Your task to perform on an android device: Clear the cart on newegg.com. Search for energizer triple a on newegg.com, select the first entry, and add it to the cart. Image 0: 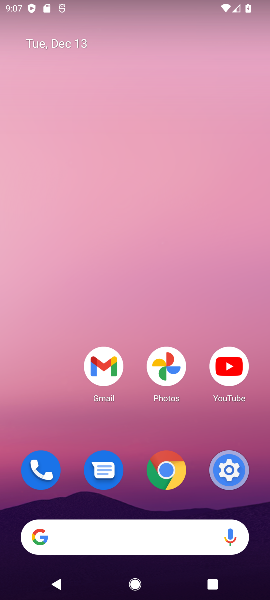
Step 0: press home button
Your task to perform on an android device: Clear the cart on newegg.com. Search for energizer triple a on newegg.com, select the first entry, and add it to the cart. Image 1: 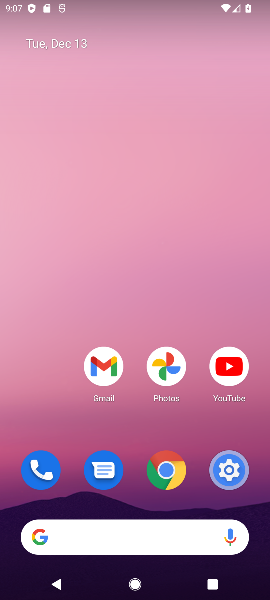
Step 1: click (56, 542)
Your task to perform on an android device: Clear the cart on newegg.com. Search for energizer triple a on newegg.com, select the first entry, and add it to the cart. Image 2: 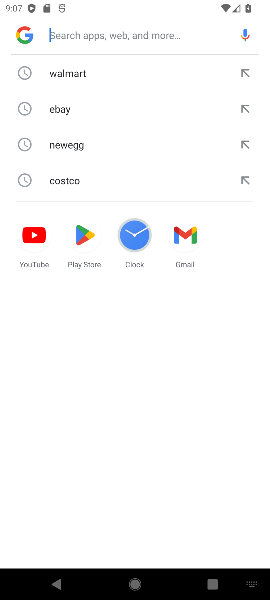
Step 2: type "newegg.com"
Your task to perform on an android device: Clear the cart on newegg.com. Search for energizer triple a on newegg.com, select the first entry, and add it to the cart. Image 3: 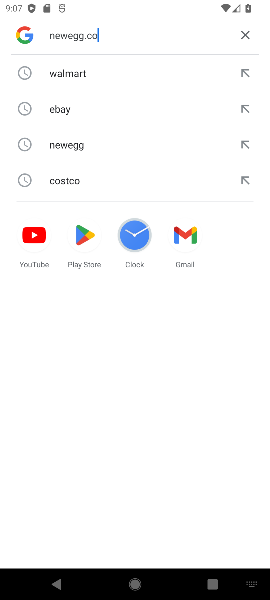
Step 3: press enter
Your task to perform on an android device: Clear the cart on newegg.com. Search for energizer triple a on newegg.com, select the first entry, and add it to the cart. Image 4: 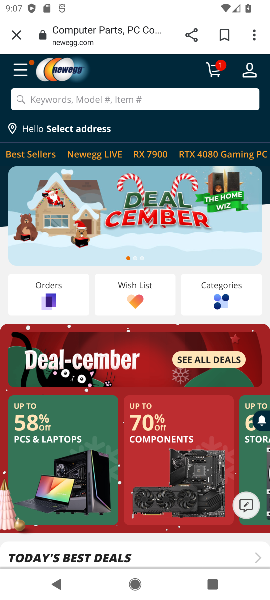
Step 4: click (212, 70)
Your task to perform on an android device: Clear the cart on newegg.com. Search for energizer triple a on newegg.com, select the first entry, and add it to the cart. Image 5: 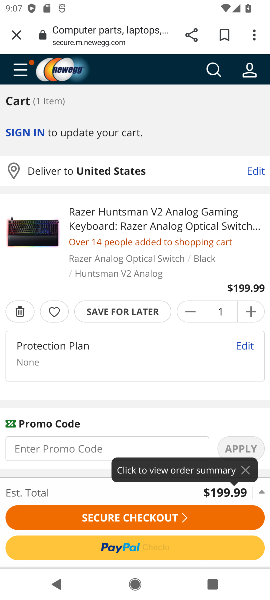
Step 5: click (19, 308)
Your task to perform on an android device: Clear the cart on newegg.com. Search for energizer triple a on newegg.com, select the first entry, and add it to the cart. Image 6: 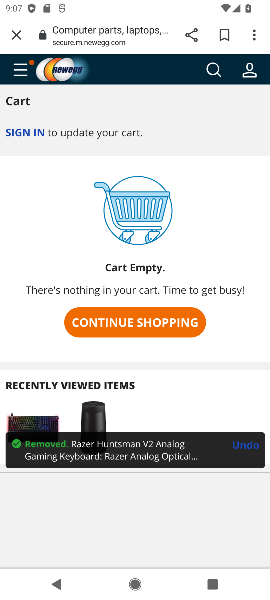
Step 6: click (215, 65)
Your task to perform on an android device: Clear the cart on newegg.com. Search for energizer triple a on newegg.com, select the first entry, and add it to the cart. Image 7: 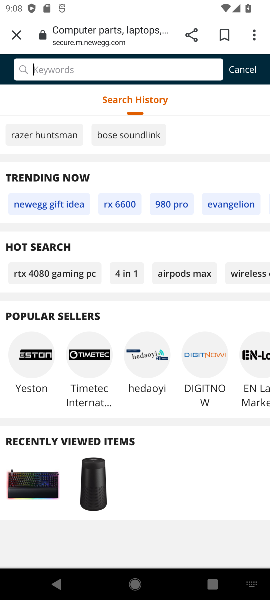
Step 7: type "energizer triple a"
Your task to perform on an android device: Clear the cart on newegg.com. Search for energizer triple a on newegg.com, select the first entry, and add it to the cart. Image 8: 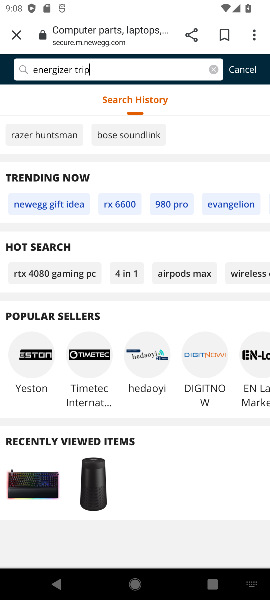
Step 8: press enter
Your task to perform on an android device: Clear the cart on newegg.com. Search for energizer triple a on newegg.com, select the first entry, and add it to the cart. Image 9: 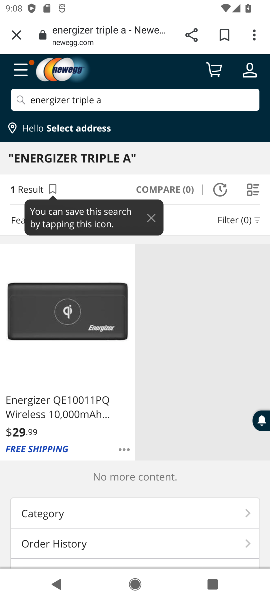
Step 9: task complete